Your task to perform on an android device: check google app version Image 0: 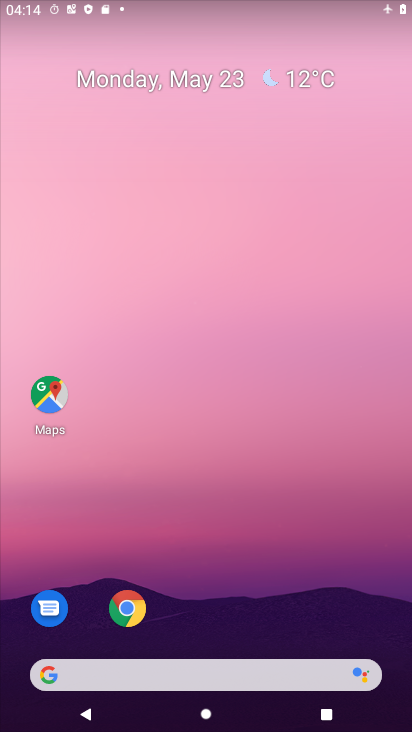
Step 0: drag from (308, 568) to (213, 18)
Your task to perform on an android device: check google app version Image 1: 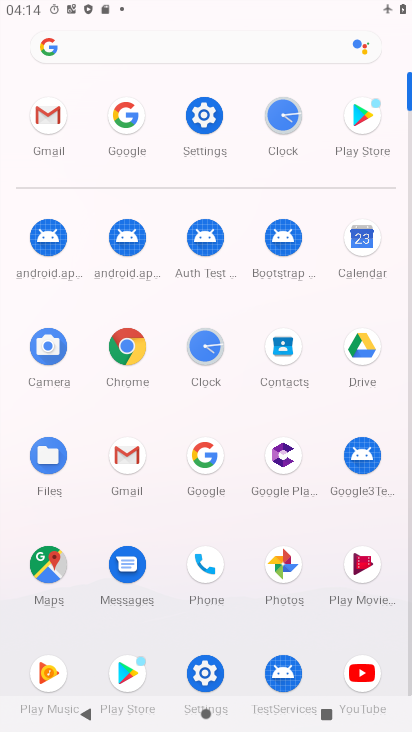
Step 1: click (202, 456)
Your task to perform on an android device: check google app version Image 2: 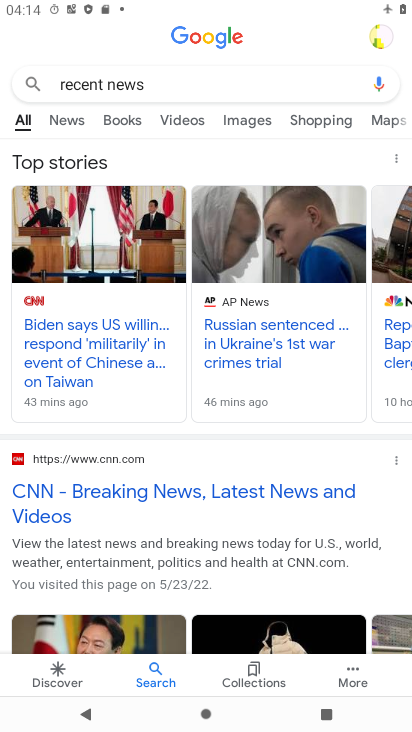
Step 2: click (358, 670)
Your task to perform on an android device: check google app version Image 3: 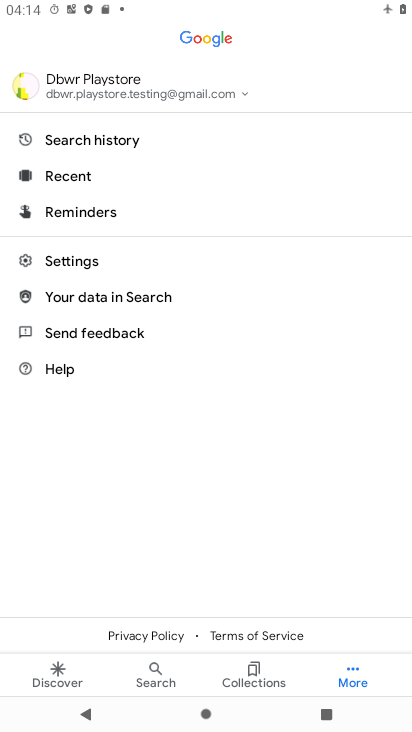
Step 3: click (115, 262)
Your task to perform on an android device: check google app version Image 4: 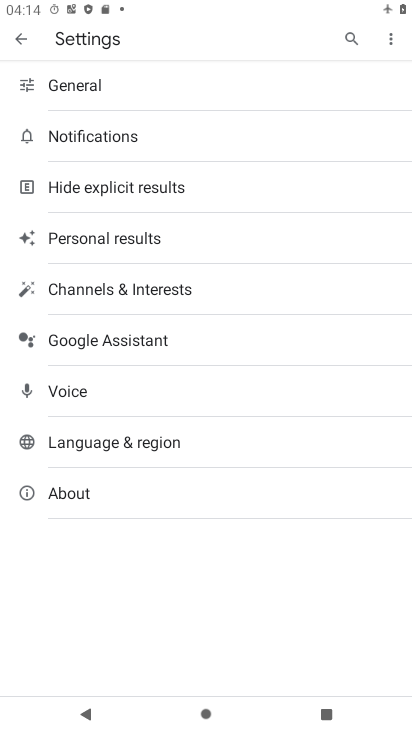
Step 4: click (144, 494)
Your task to perform on an android device: check google app version Image 5: 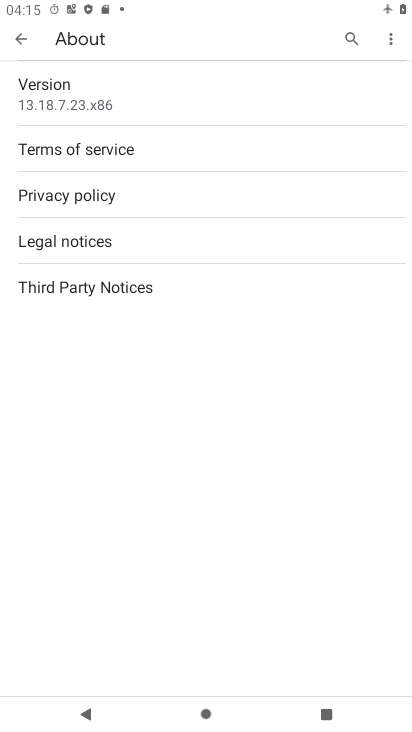
Step 5: task complete